Your task to perform on an android device: change the clock display to analog Image 0: 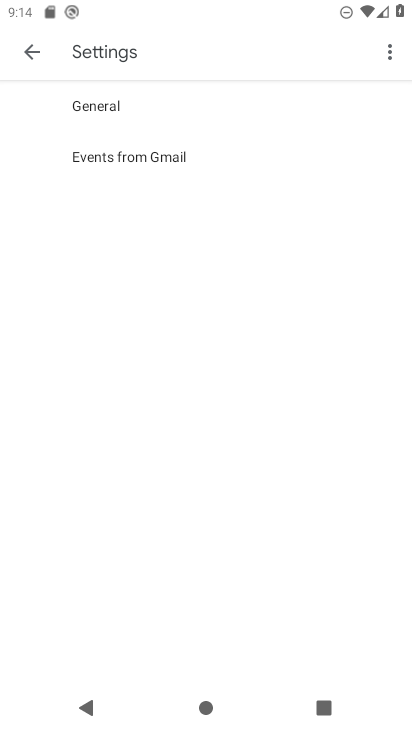
Step 0: press home button
Your task to perform on an android device: change the clock display to analog Image 1: 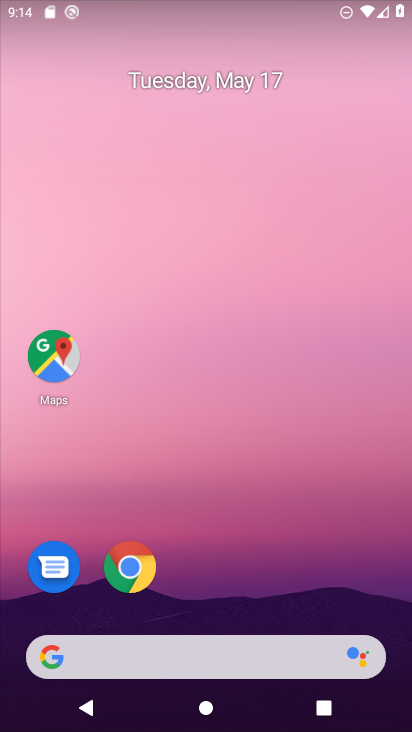
Step 1: drag from (225, 611) to (294, 204)
Your task to perform on an android device: change the clock display to analog Image 2: 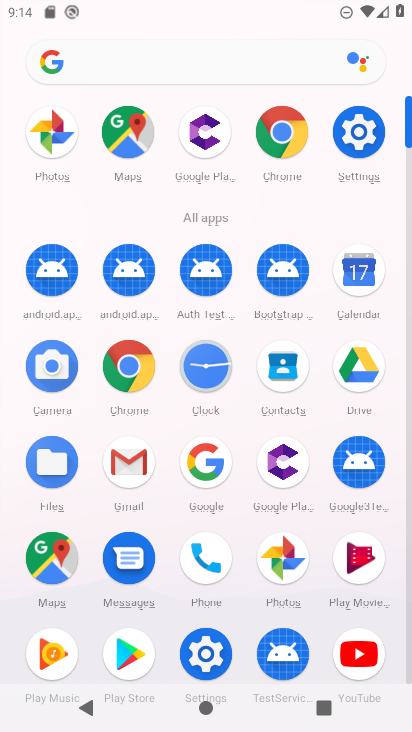
Step 2: click (206, 360)
Your task to perform on an android device: change the clock display to analog Image 3: 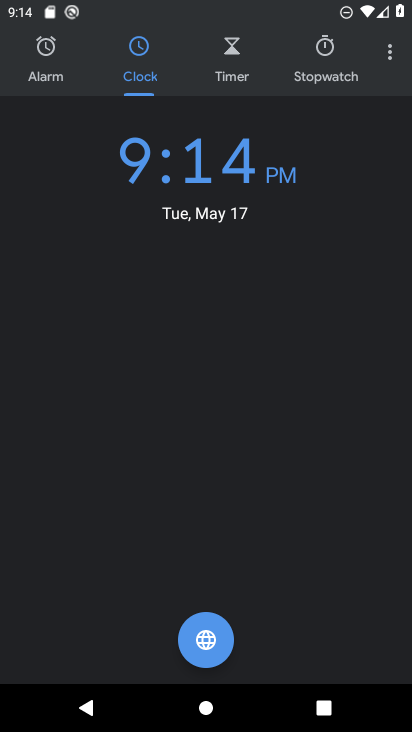
Step 3: click (400, 53)
Your task to perform on an android device: change the clock display to analog Image 4: 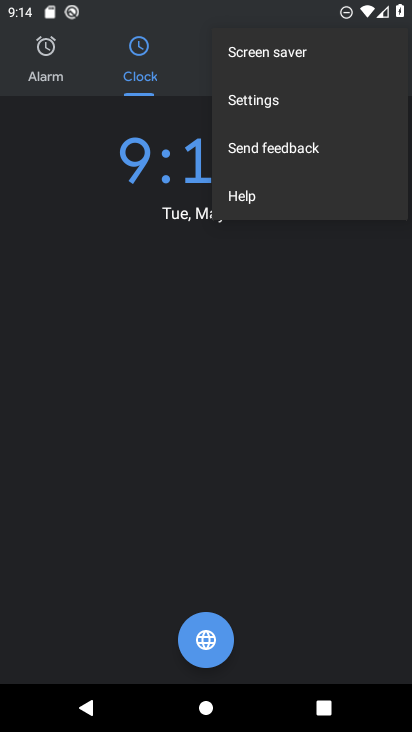
Step 4: click (367, 90)
Your task to perform on an android device: change the clock display to analog Image 5: 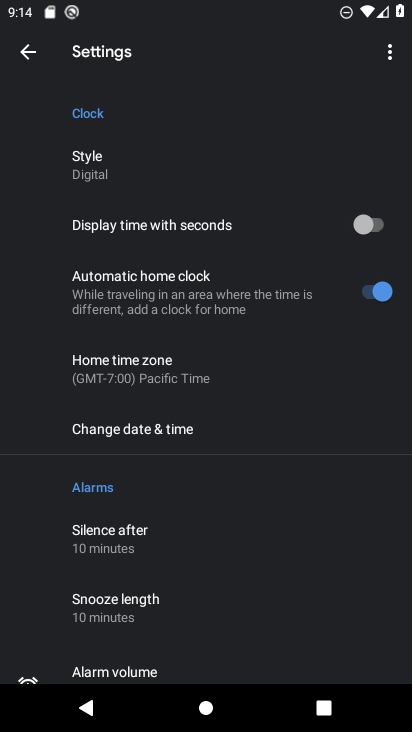
Step 5: click (260, 157)
Your task to perform on an android device: change the clock display to analog Image 6: 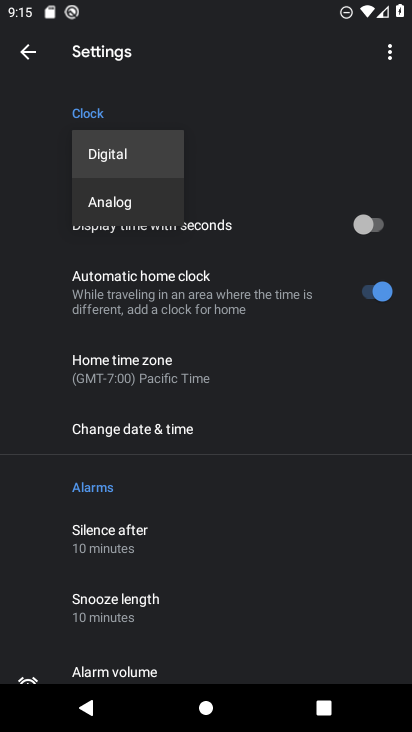
Step 6: click (127, 217)
Your task to perform on an android device: change the clock display to analog Image 7: 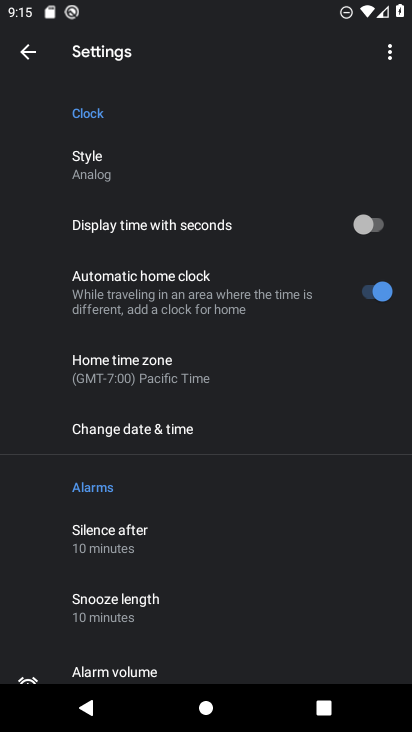
Step 7: task complete